Your task to perform on an android device: Open Google Chrome Image 0: 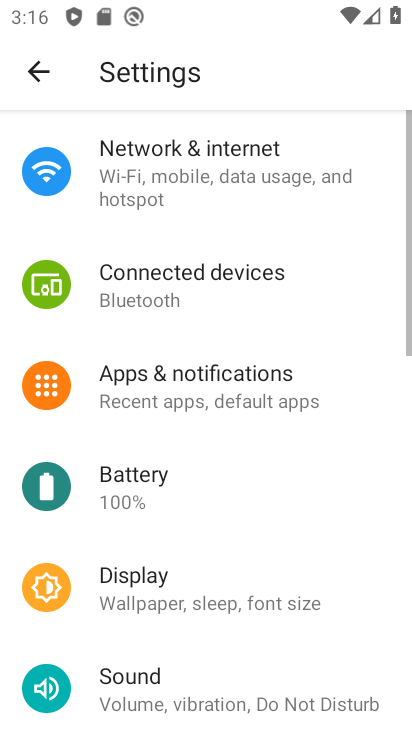
Step 0: press home button
Your task to perform on an android device: Open Google Chrome Image 1: 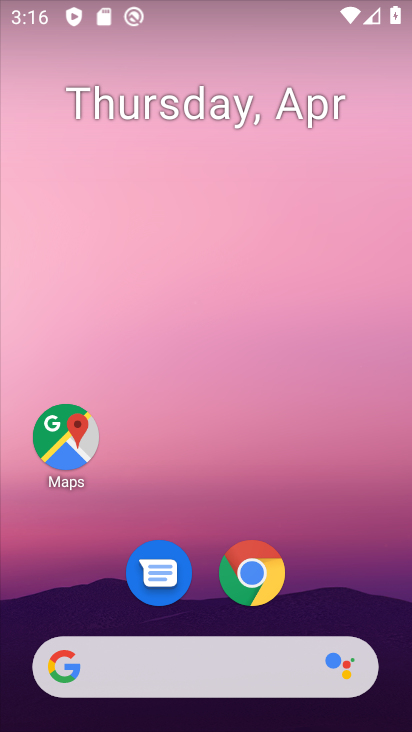
Step 1: drag from (343, 621) to (254, 32)
Your task to perform on an android device: Open Google Chrome Image 2: 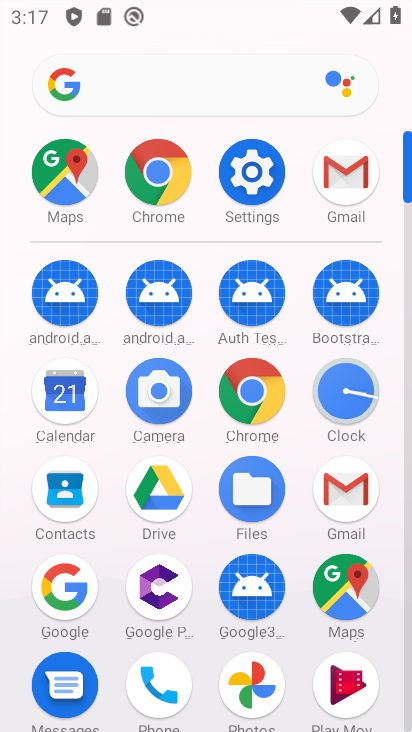
Step 2: click (256, 408)
Your task to perform on an android device: Open Google Chrome Image 3: 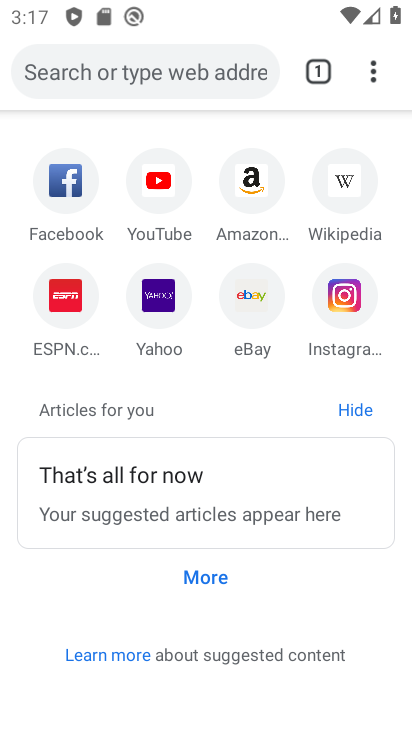
Step 3: task complete